Your task to perform on an android device: Open notification settings Image 0: 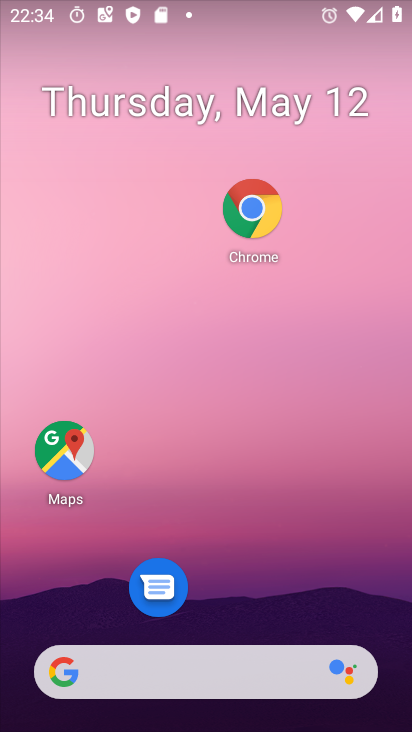
Step 0: drag from (280, 544) to (300, 295)
Your task to perform on an android device: Open notification settings Image 1: 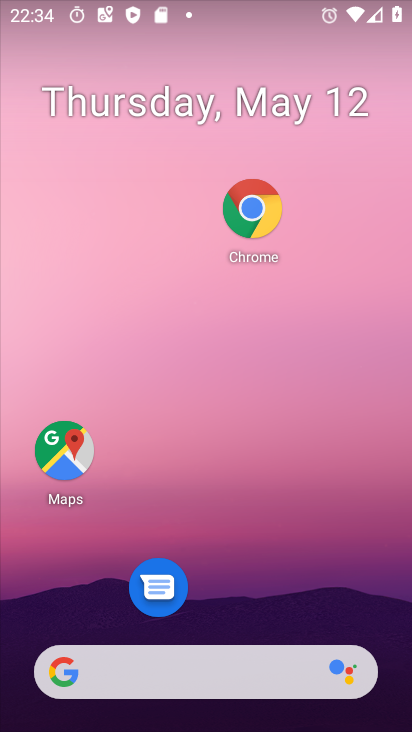
Step 1: drag from (272, 316) to (276, 44)
Your task to perform on an android device: Open notification settings Image 2: 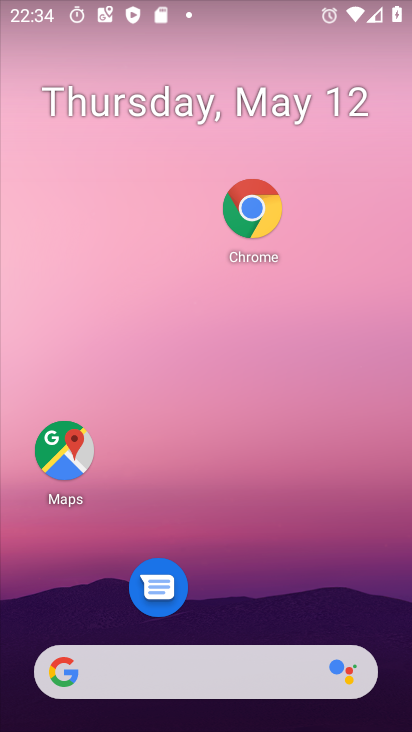
Step 2: drag from (277, 614) to (336, 279)
Your task to perform on an android device: Open notification settings Image 3: 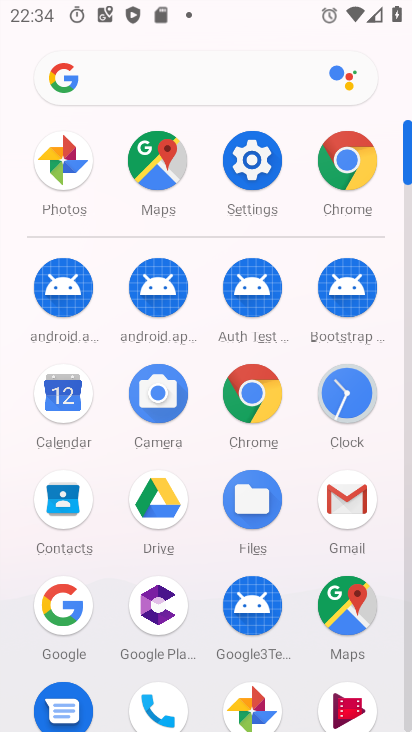
Step 3: click (244, 152)
Your task to perform on an android device: Open notification settings Image 4: 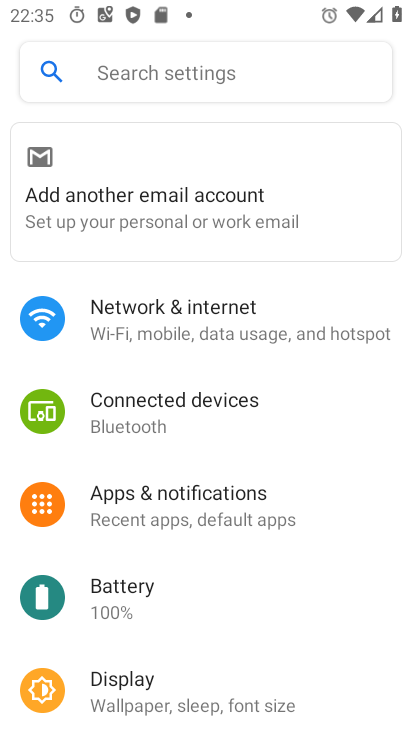
Step 4: click (179, 504)
Your task to perform on an android device: Open notification settings Image 5: 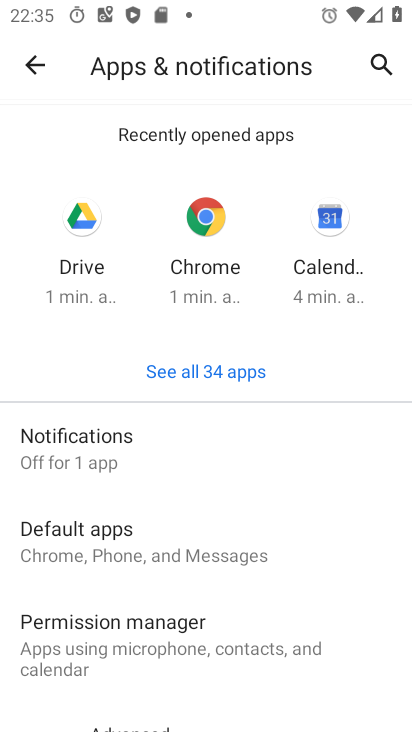
Step 5: click (162, 440)
Your task to perform on an android device: Open notification settings Image 6: 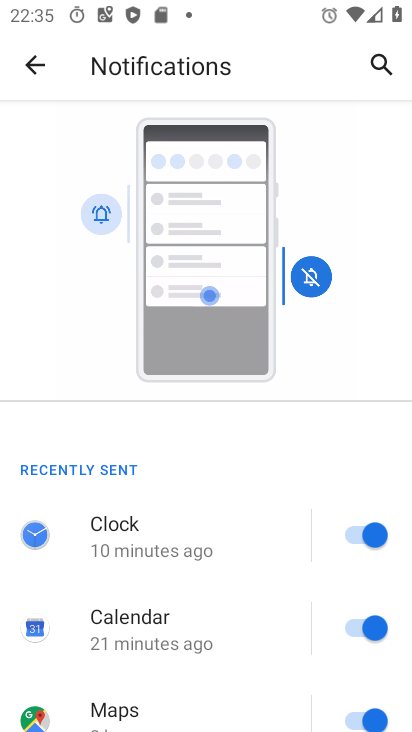
Step 6: task complete